Your task to perform on an android device: set an alarm Image 0: 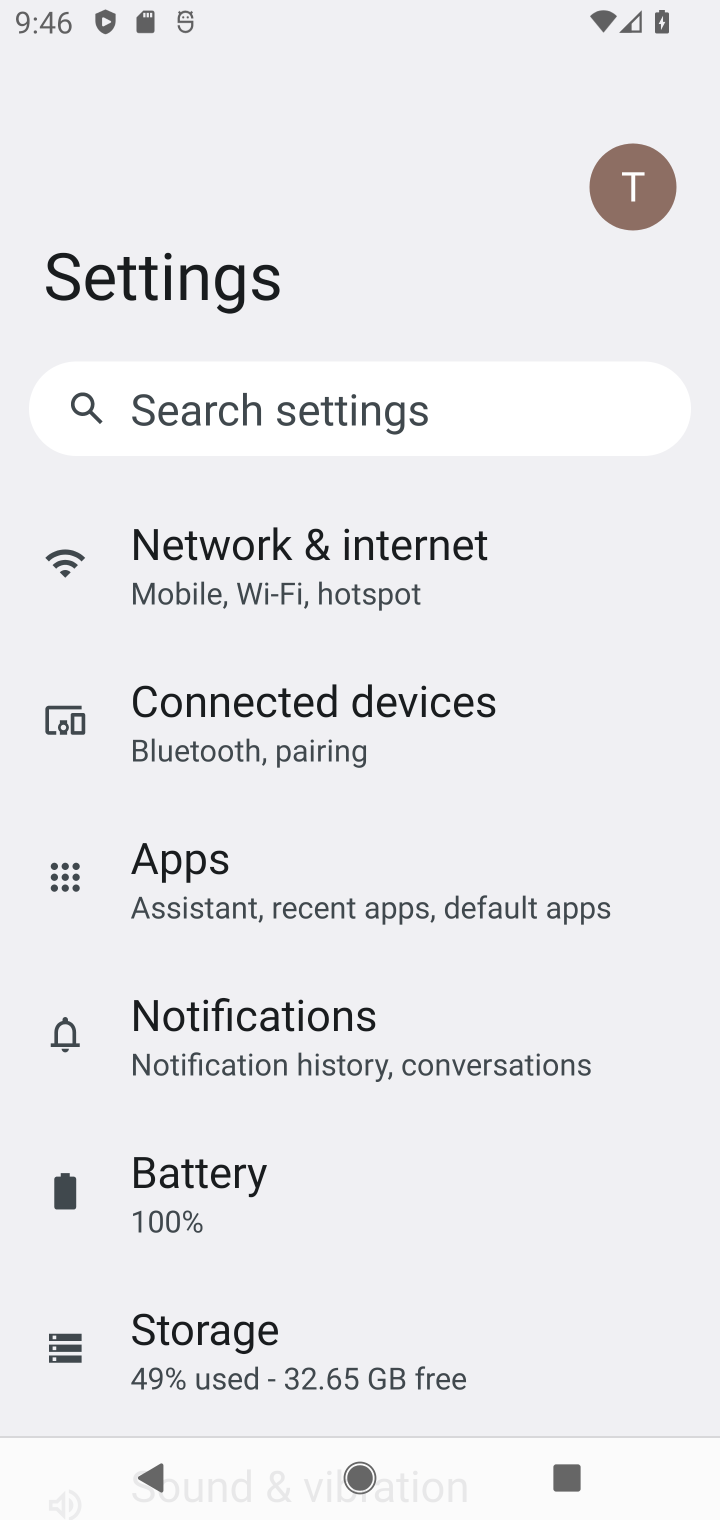
Step 0: press home button
Your task to perform on an android device: set an alarm Image 1: 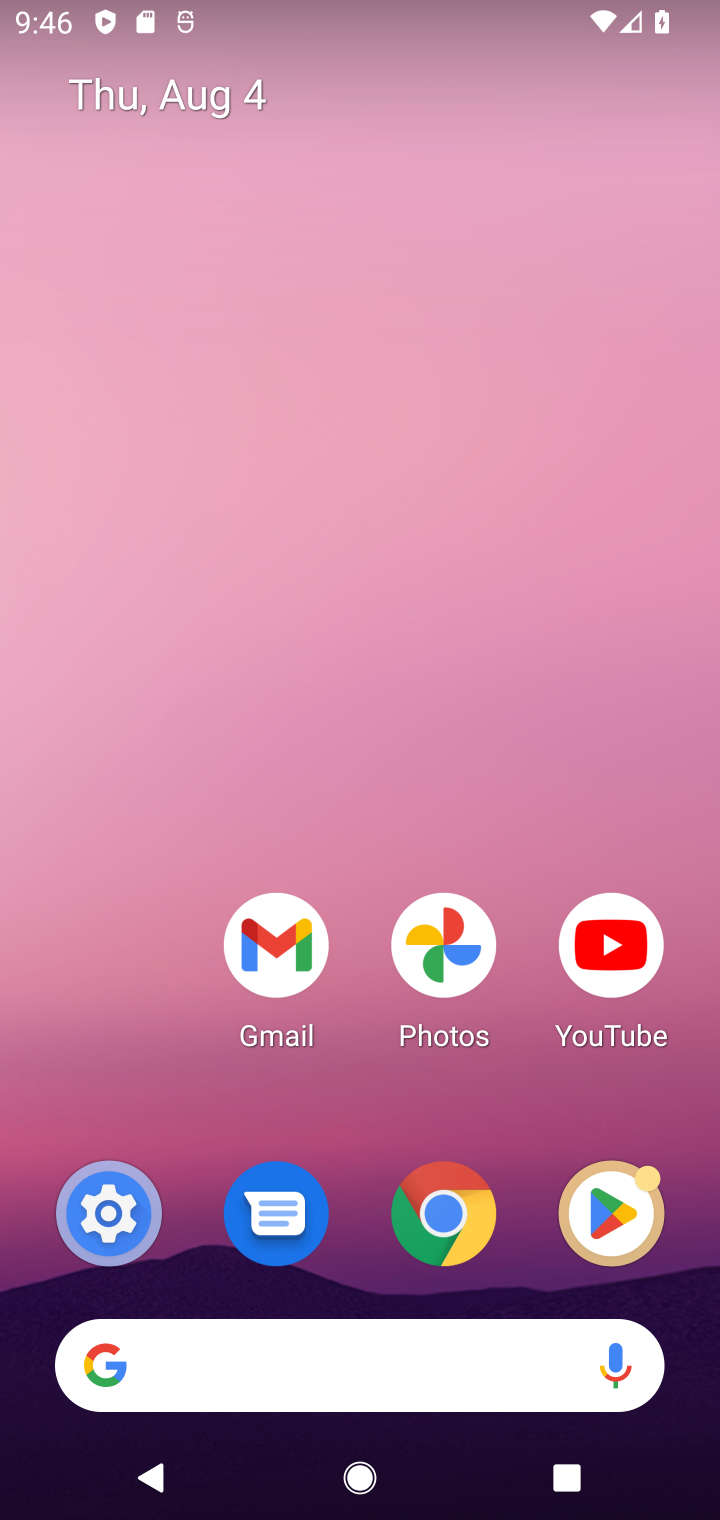
Step 1: drag from (325, 1202) to (497, 668)
Your task to perform on an android device: set an alarm Image 2: 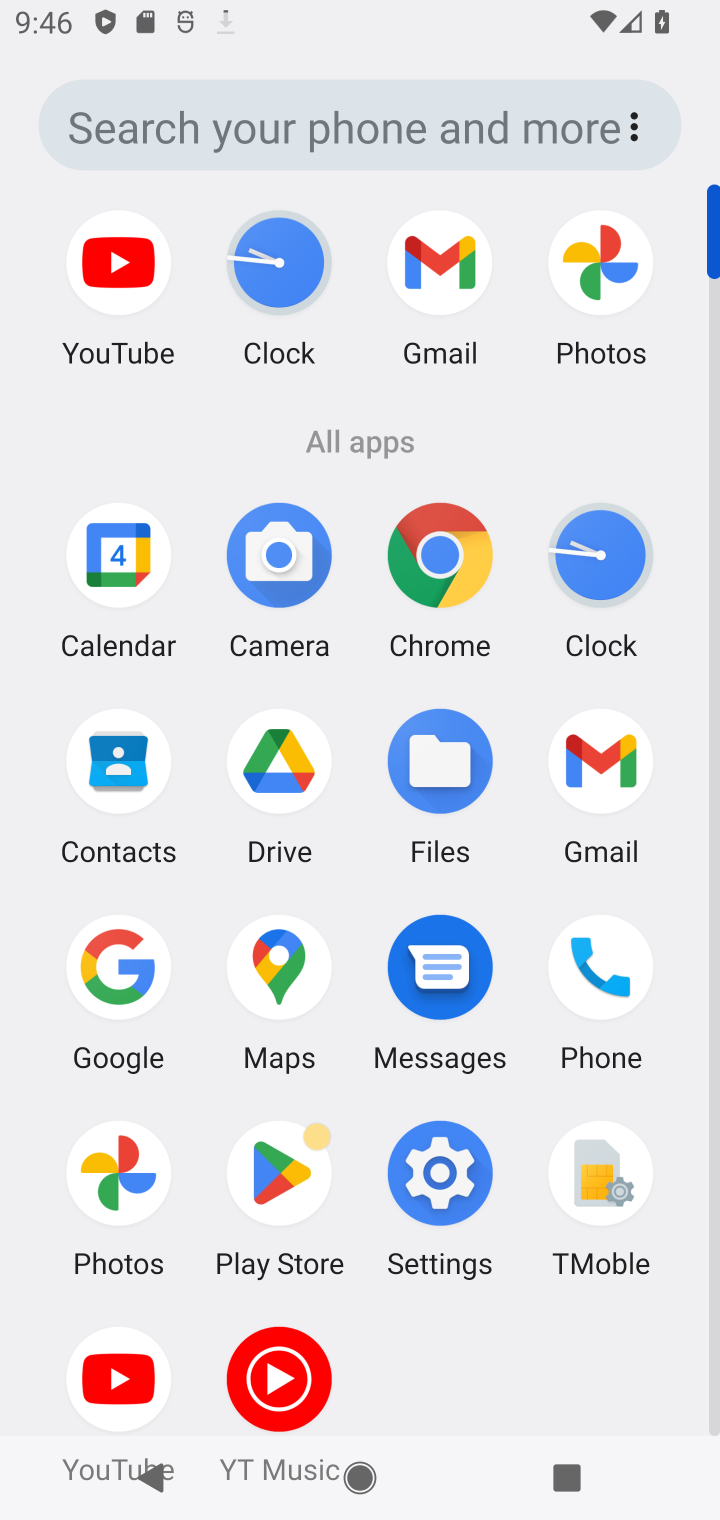
Step 2: click (590, 547)
Your task to perform on an android device: set an alarm Image 3: 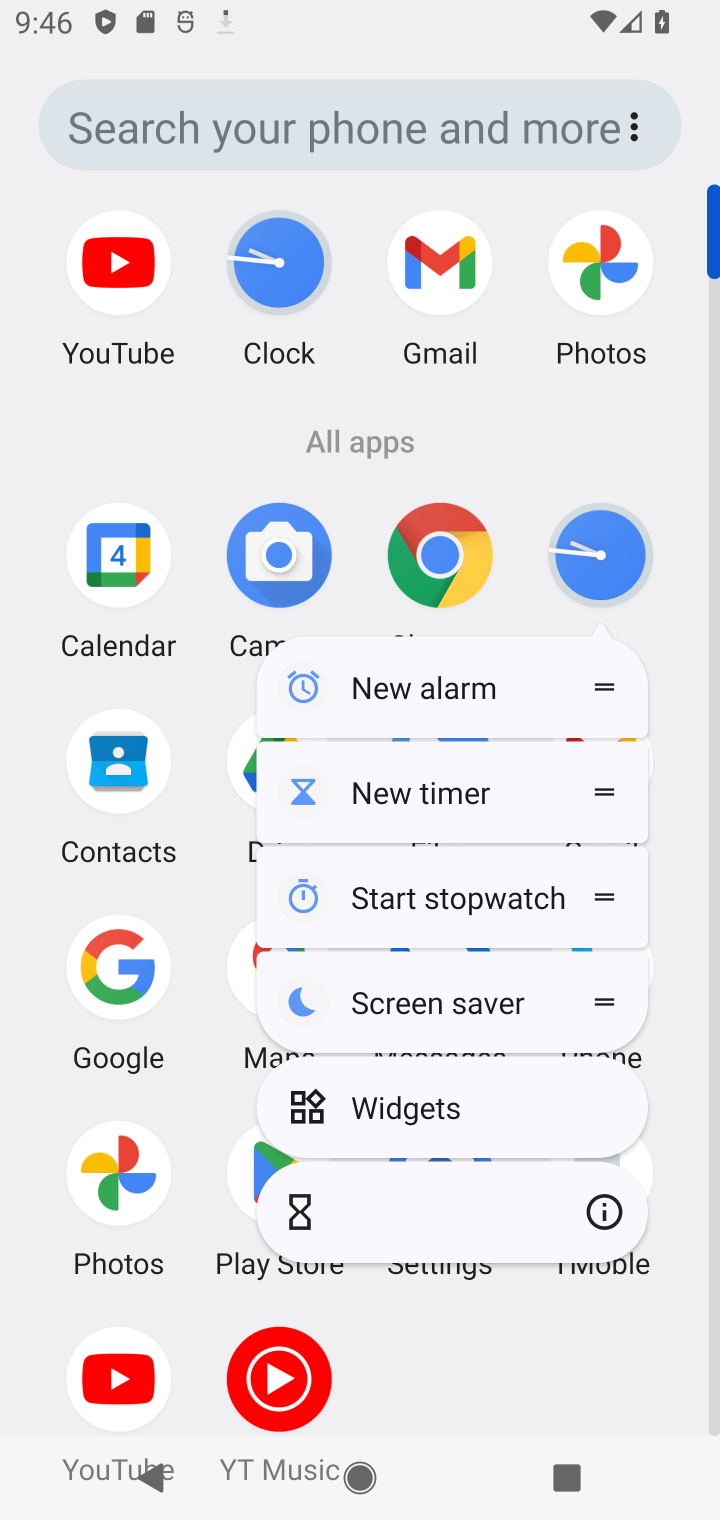
Step 3: click (625, 533)
Your task to perform on an android device: set an alarm Image 4: 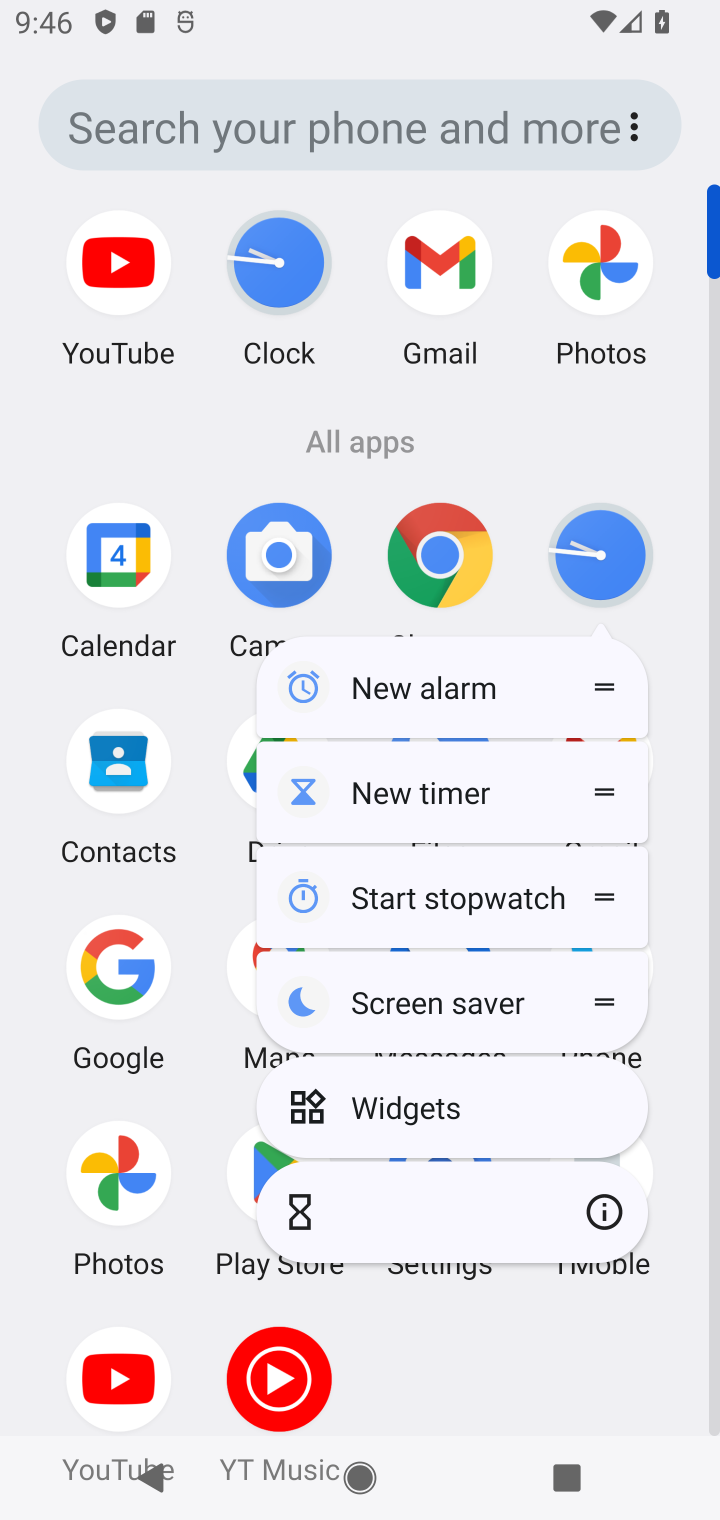
Step 4: click (623, 531)
Your task to perform on an android device: set an alarm Image 5: 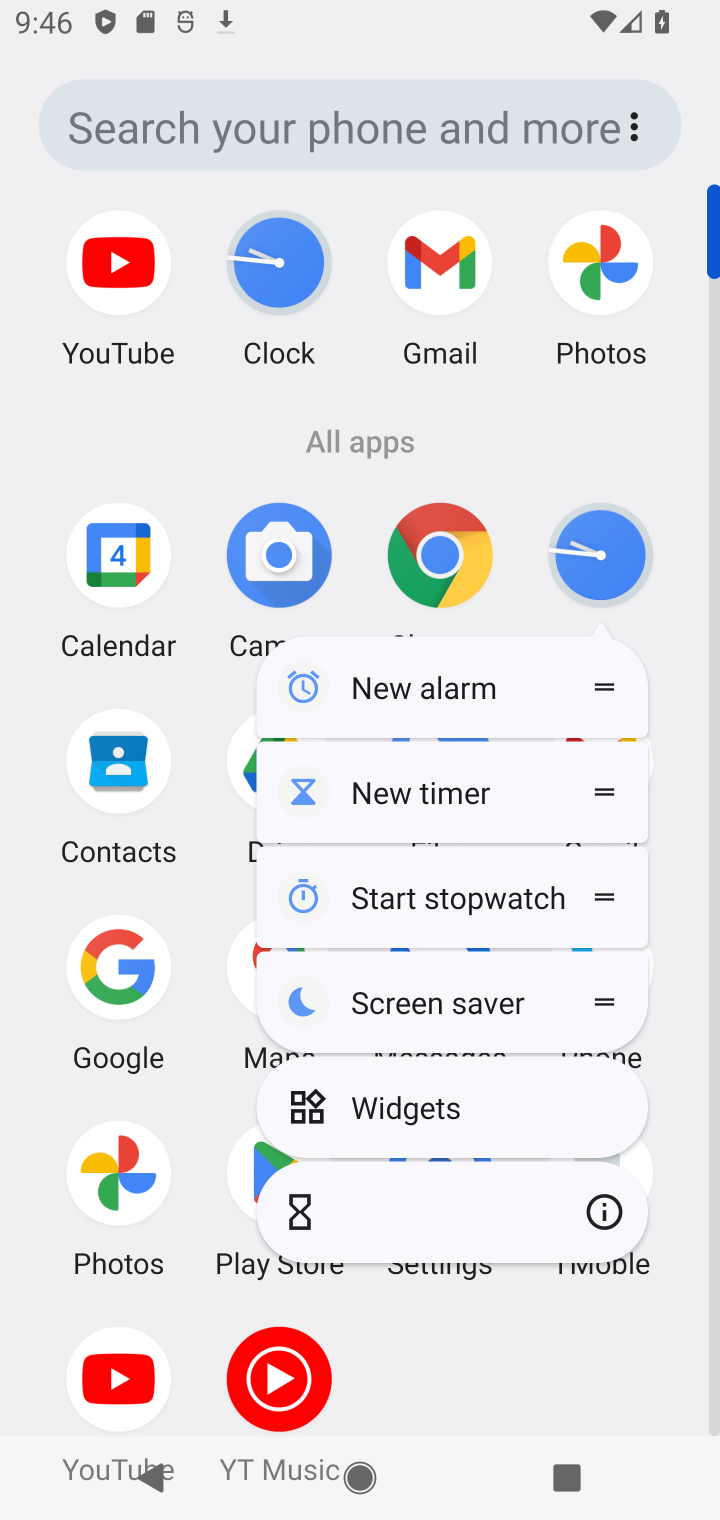
Step 5: click (595, 557)
Your task to perform on an android device: set an alarm Image 6: 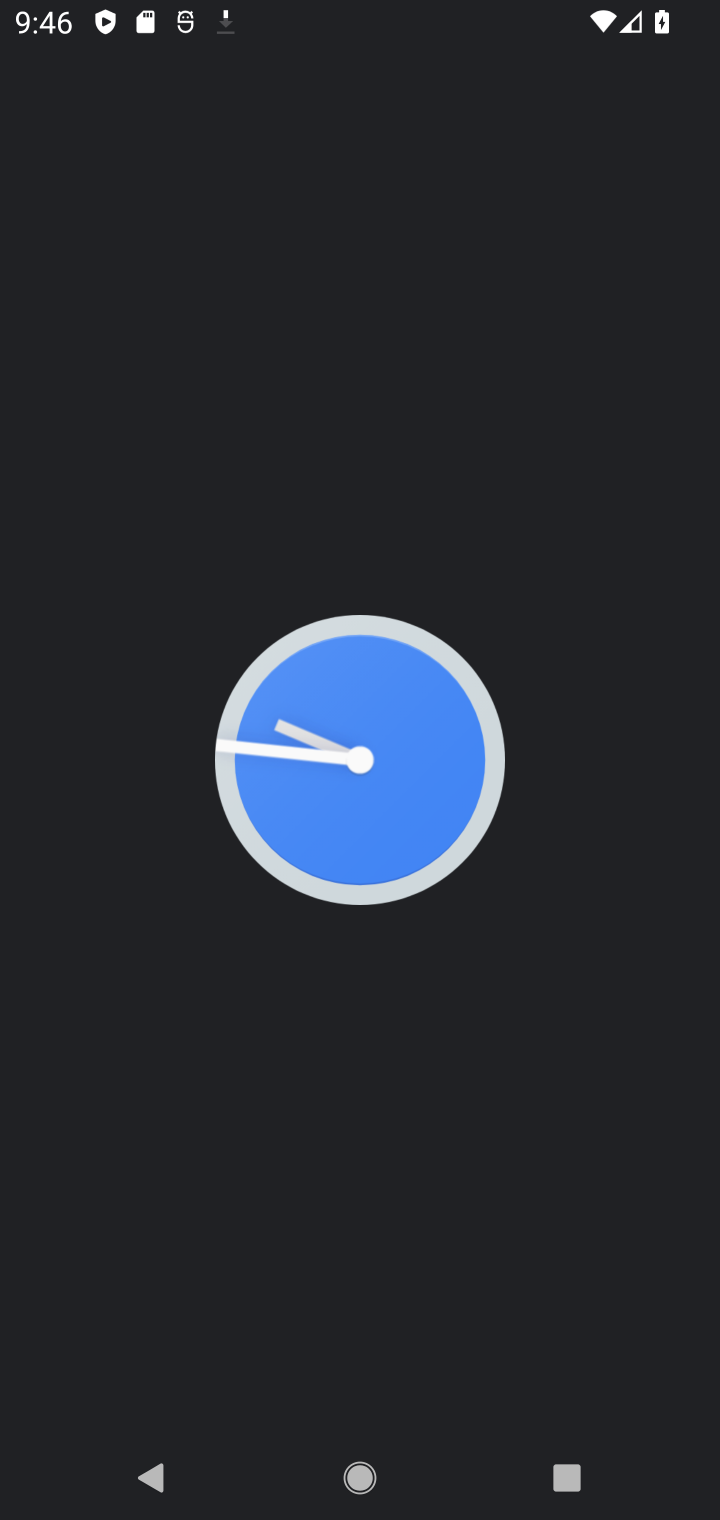
Step 6: click (595, 557)
Your task to perform on an android device: set an alarm Image 7: 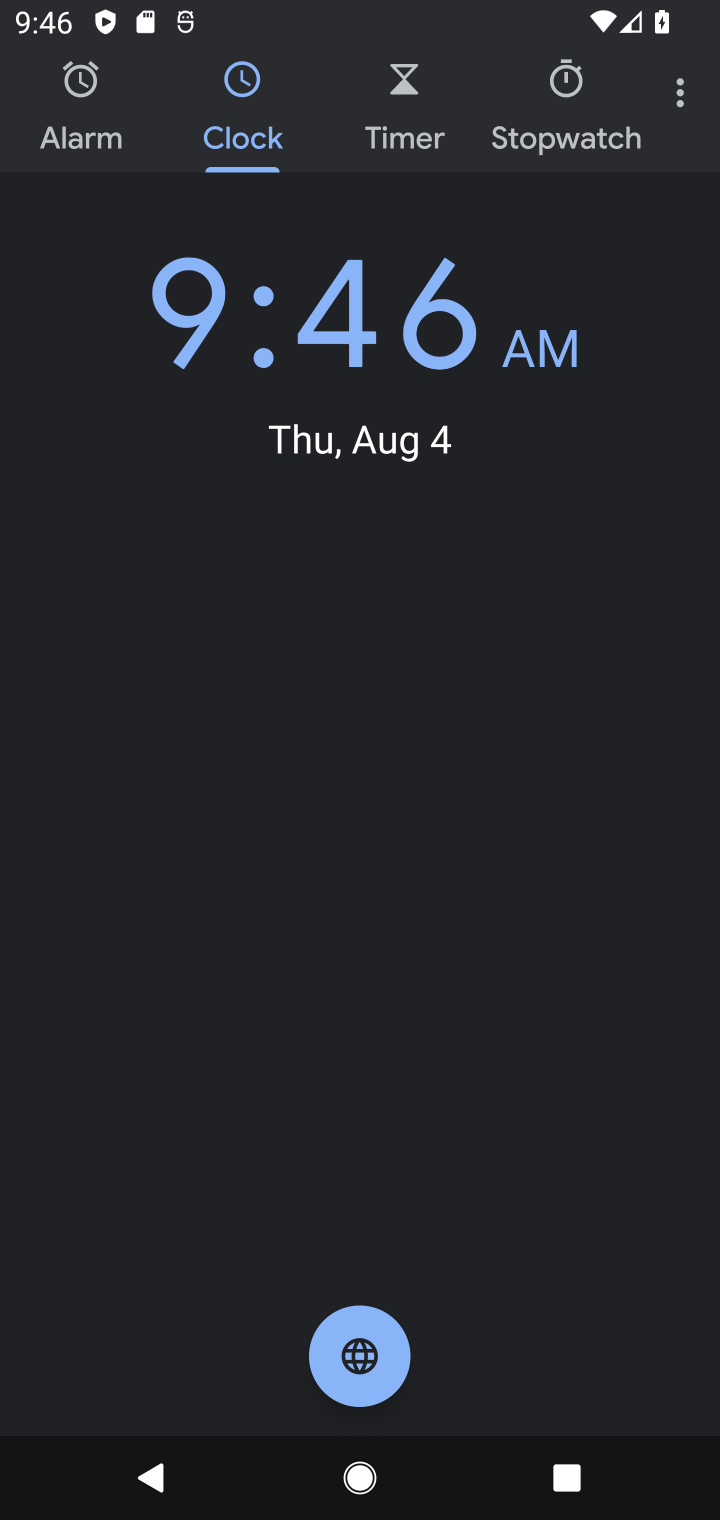
Step 7: click (85, 90)
Your task to perform on an android device: set an alarm Image 8: 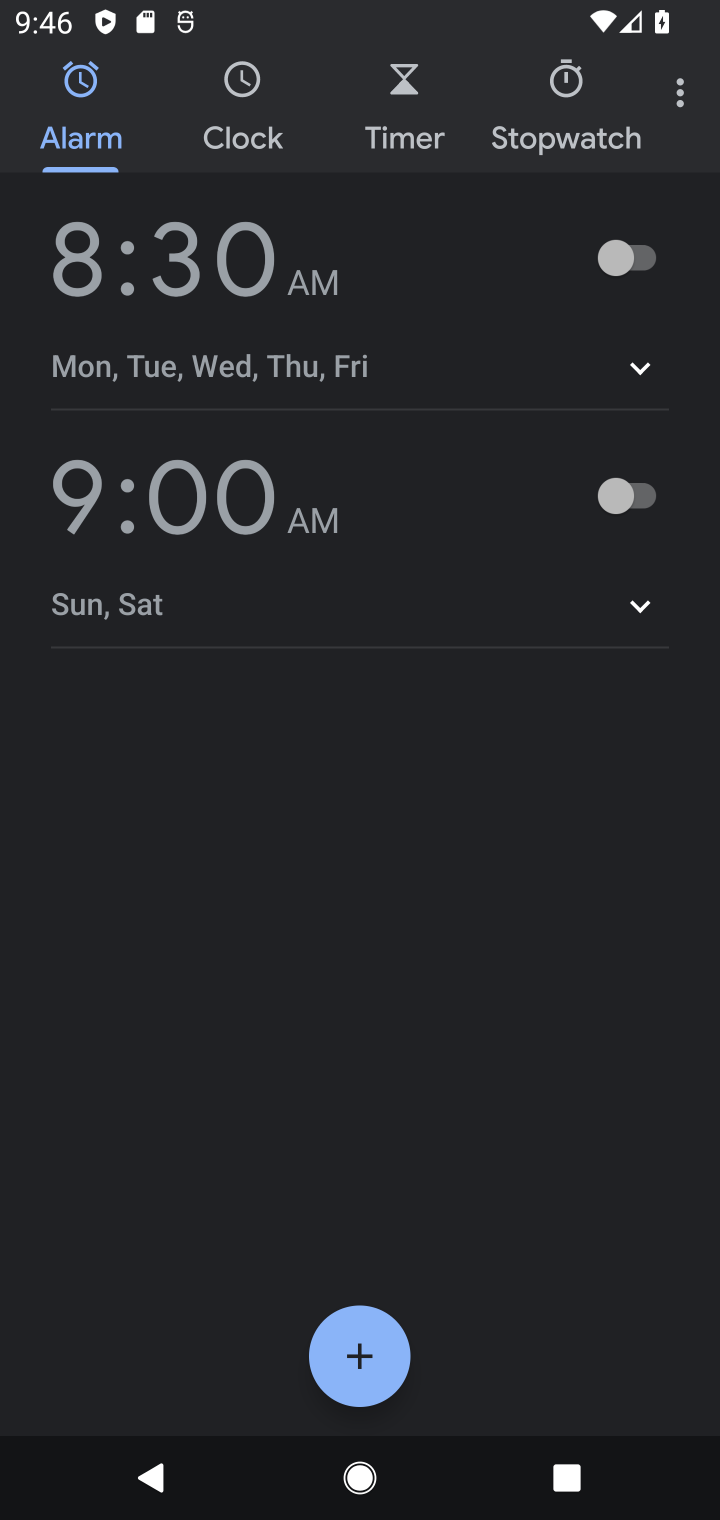
Step 8: click (132, 317)
Your task to perform on an android device: set an alarm Image 9: 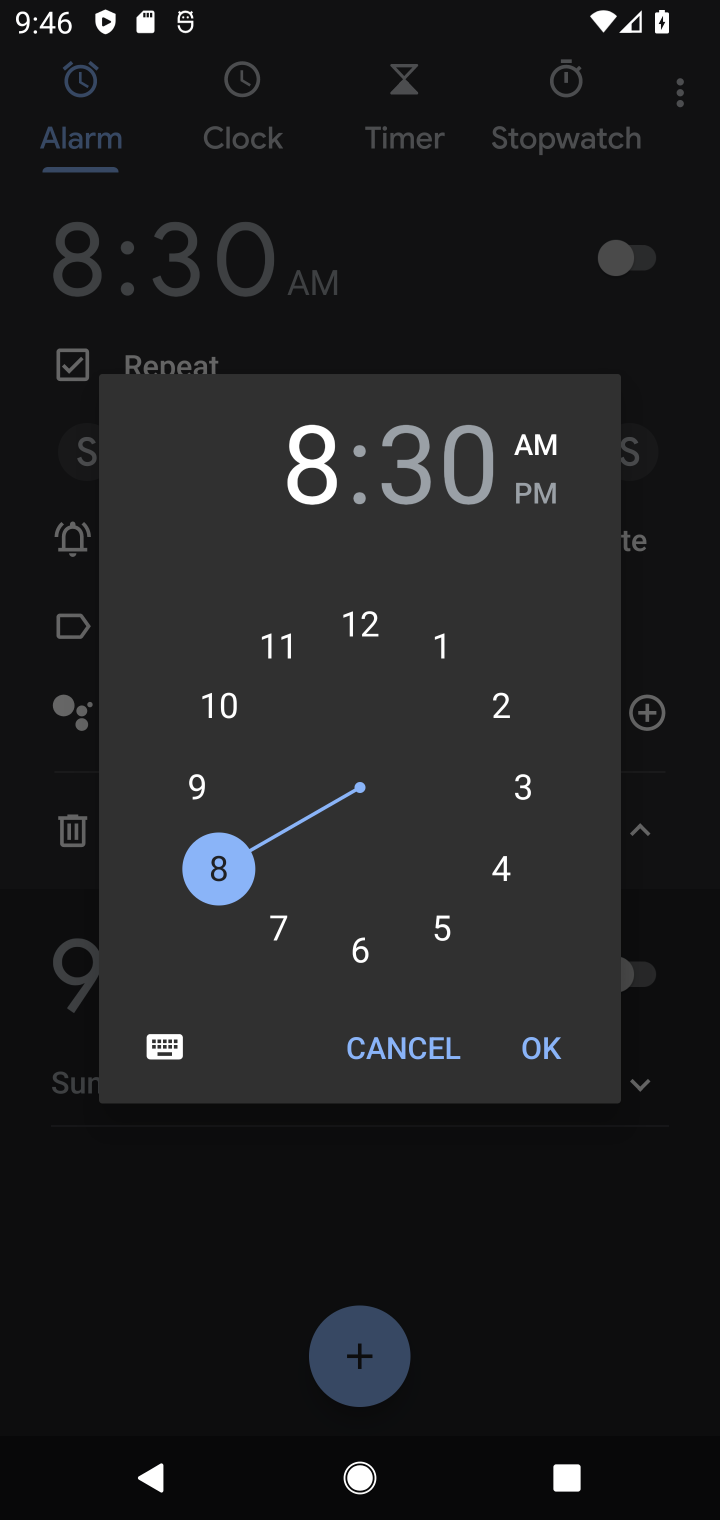
Step 9: click (304, 654)
Your task to perform on an android device: set an alarm Image 10: 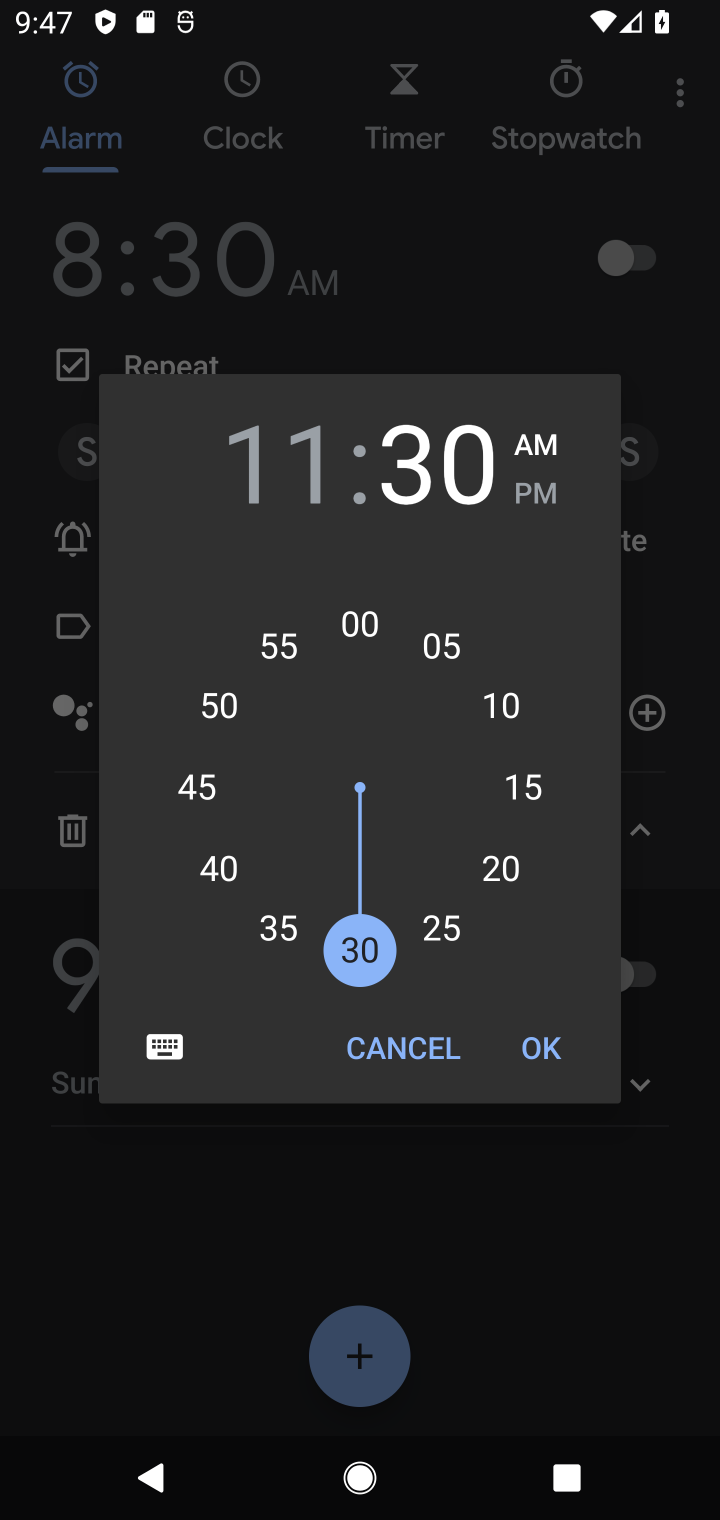
Step 10: click (513, 791)
Your task to perform on an android device: set an alarm Image 11: 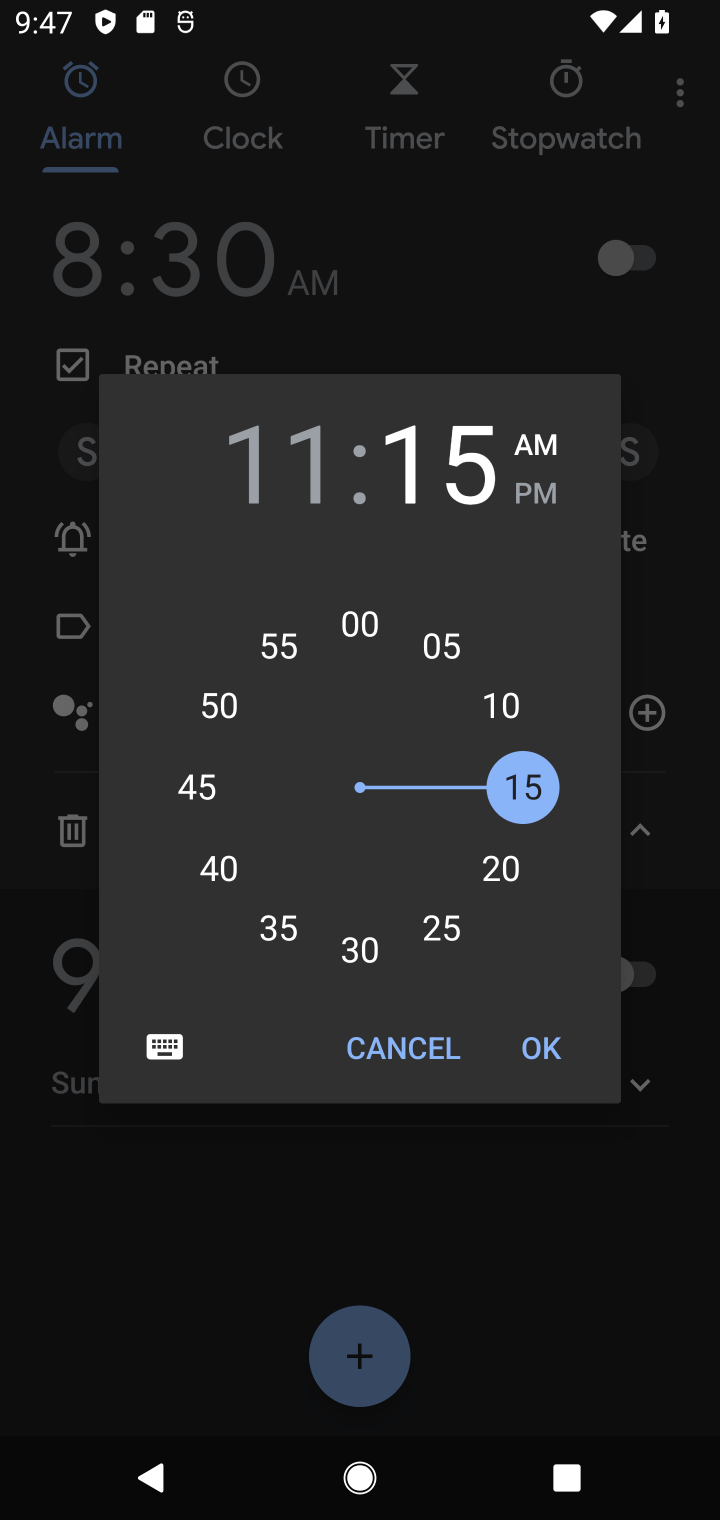
Step 11: click (540, 495)
Your task to perform on an android device: set an alarm Image 12: 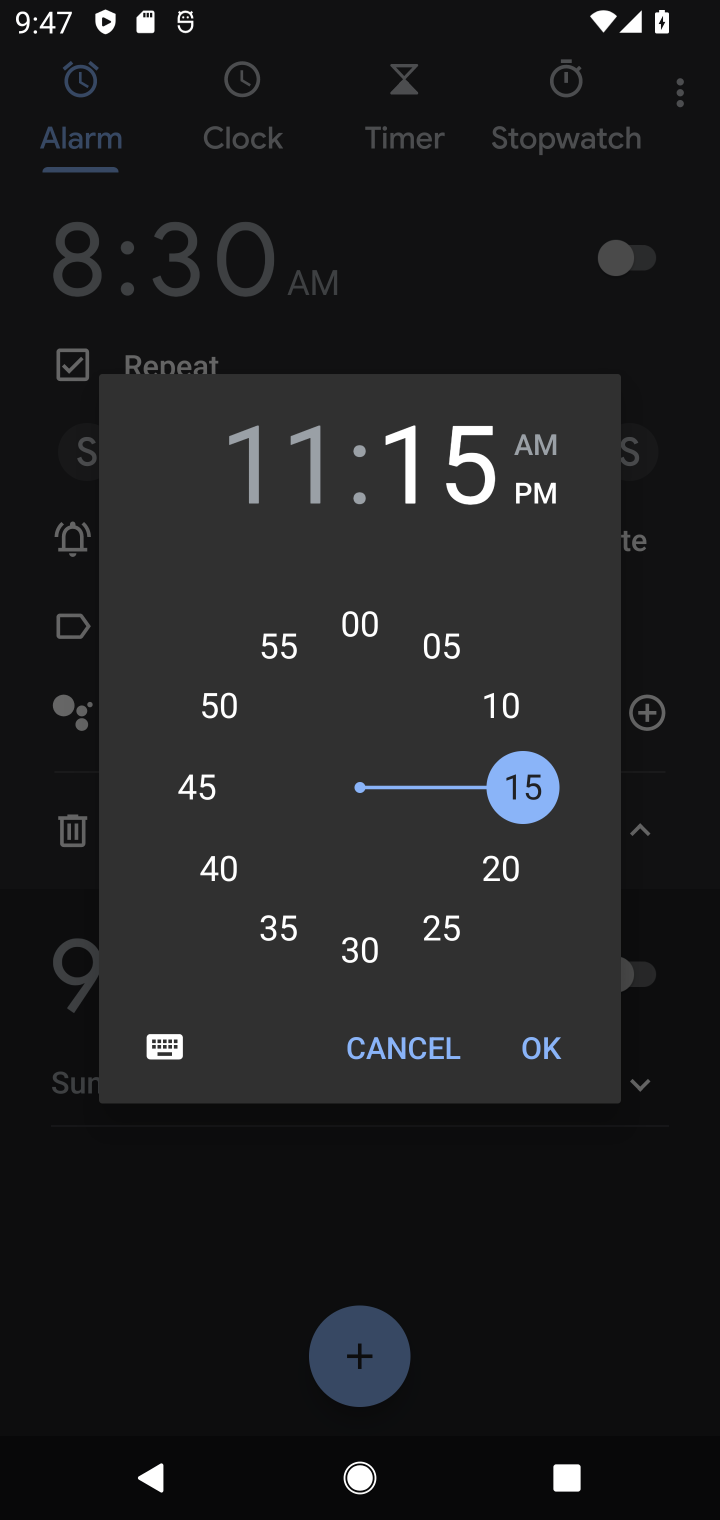
Step 12: click (551, 1052)
Your task to perform on an android device: set an alarm Image 13: 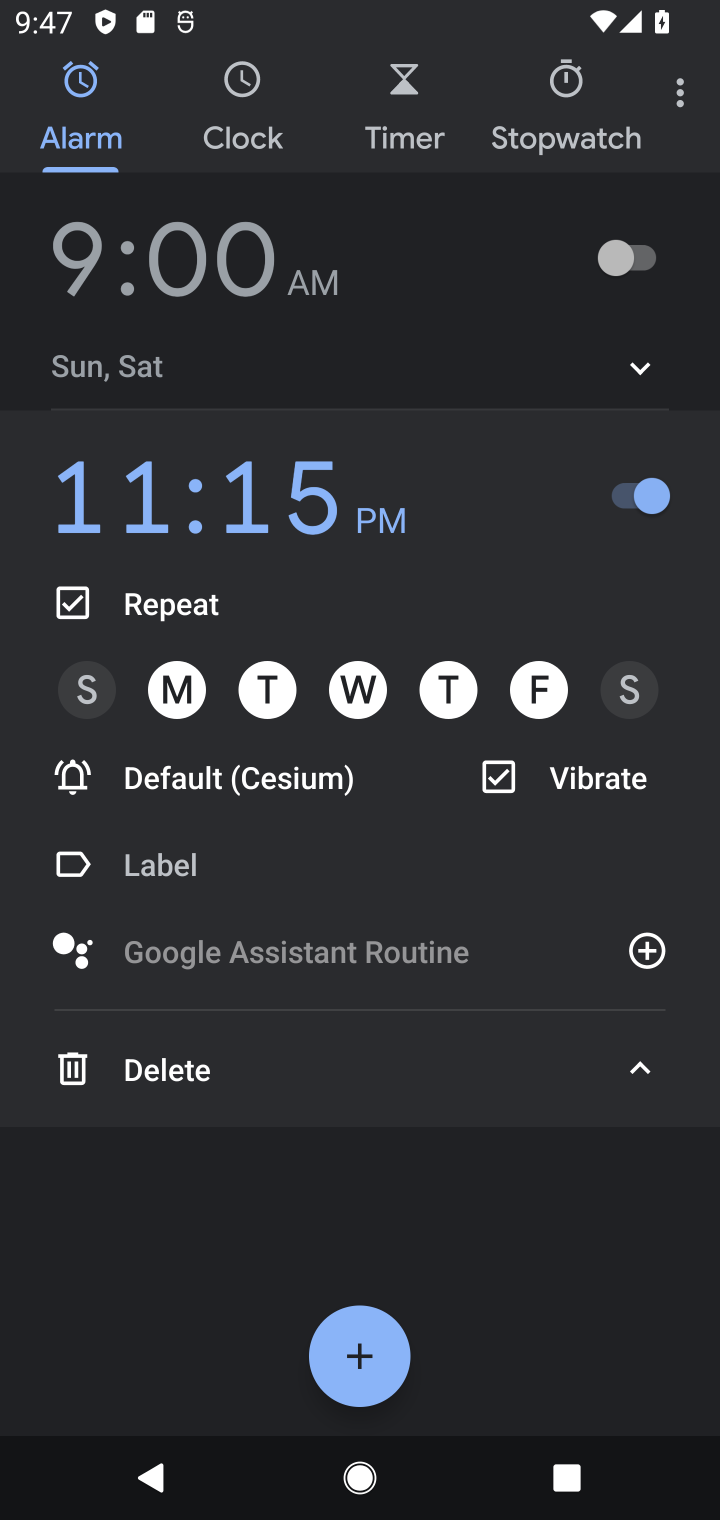
Step 13: task complete